Your task to perform on an android device: Add asus zenbook to the cart on walmart.com Image 0: 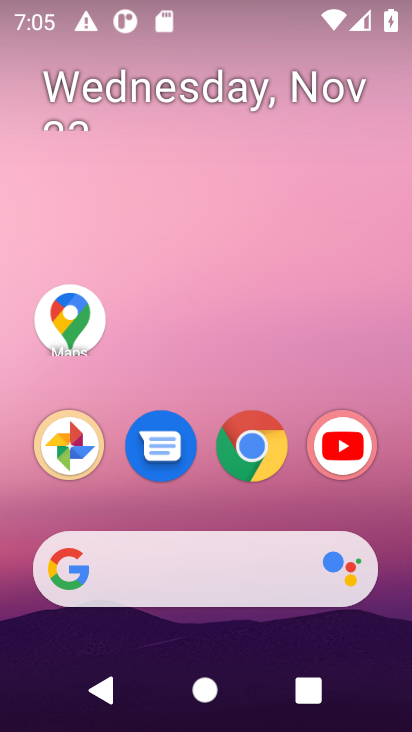
Step 0: click (180, 582)
Your task to perform on an android device: Add asus zenbook to the cart on walmart.com Image 1: 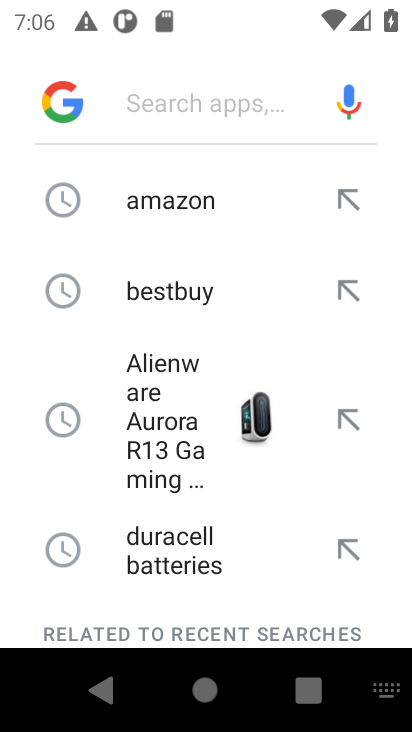
Step 1: type "walmart.com"
Your task to perform on an android device: Add asus zenbook to the cart on walmart.com Image 2: 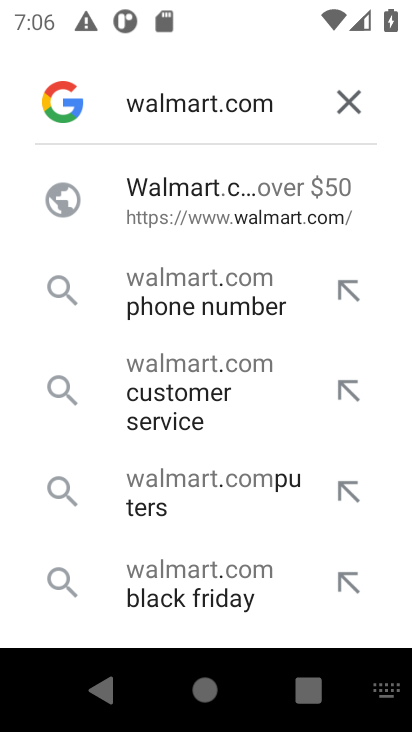
Step 2: click (151, 193)
Your task to perform on an android device: Add asus zenbook to the cart on walmart.com Image 3: 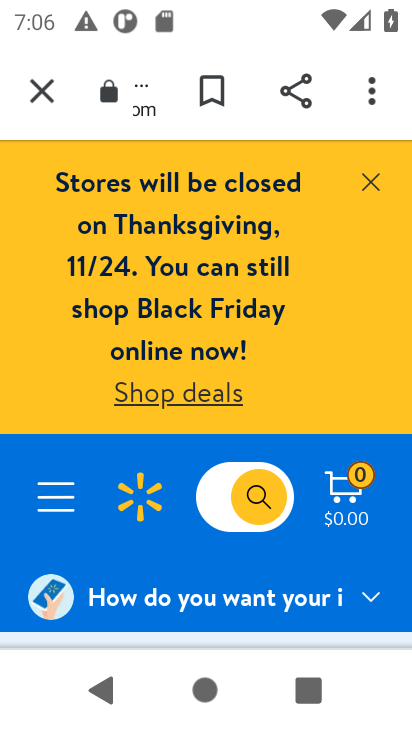
Step 3: click (366, 181)
Your task to perform on an android device: Add asus zenbook to the cart on walmart.com Image 4: 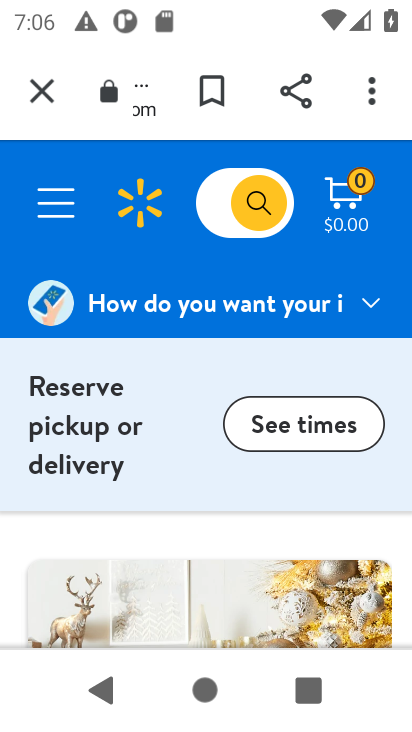
Step 4: click (224, 219)
Your task to perform on an android device: Add asus zenbook to the cart on walmart.com Image 5: 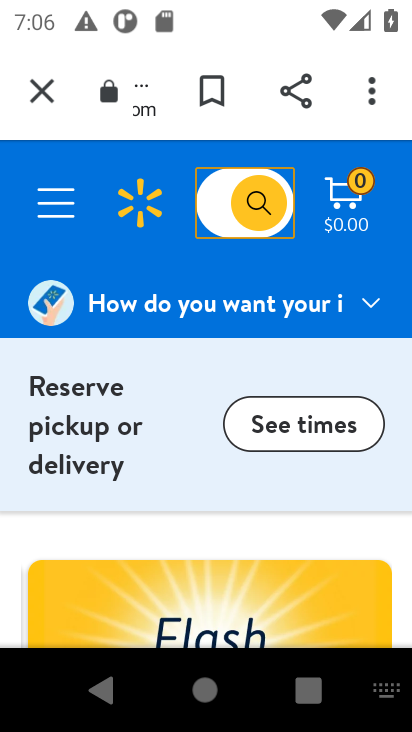
Step 5: type "asus zenbook"
Your task to perform on an android device: Add asus zenbook to the cart on walmart.com Image 6: 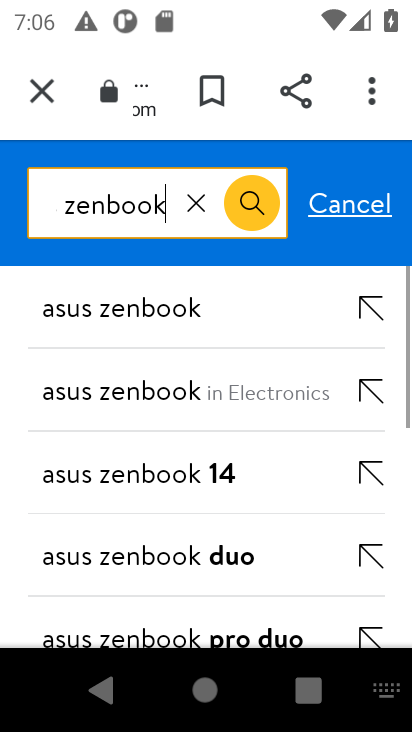
Step 6: click (148, 394)
Your task to perform on an android device: Add asus zenbook to the cart on walmart.com Image 7: 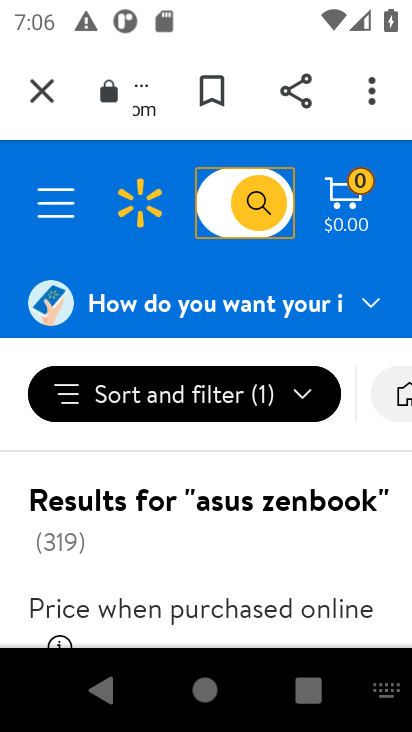
Step 7: drag from (147, 534) to (145, 228)
Your task to perform on an android device: Add asus zenbook to the cart on walmart.com Image 8: 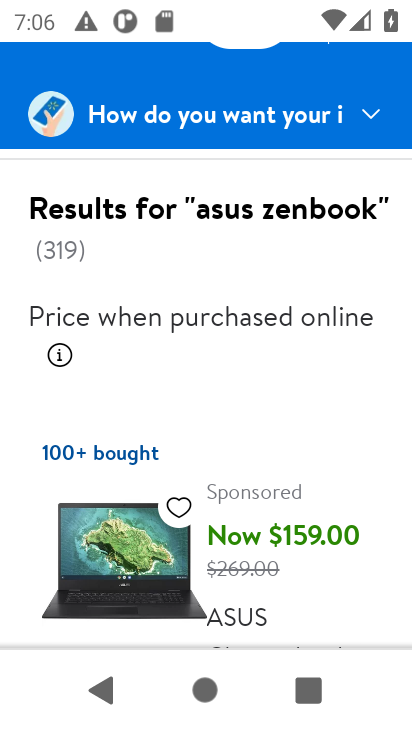
Step 8: drag from (289, 412) to (285, 217)
Your task to perform on an android device: Add asus zenbook to the cart on walmart.com Image 9: 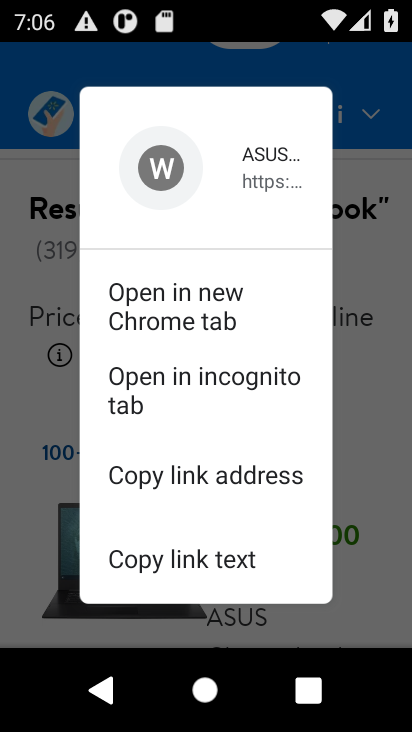
Step 9: click (380, 432)
Your task to perform on an android device: Add asus zenbook to the cart on walmart.com Image 10: 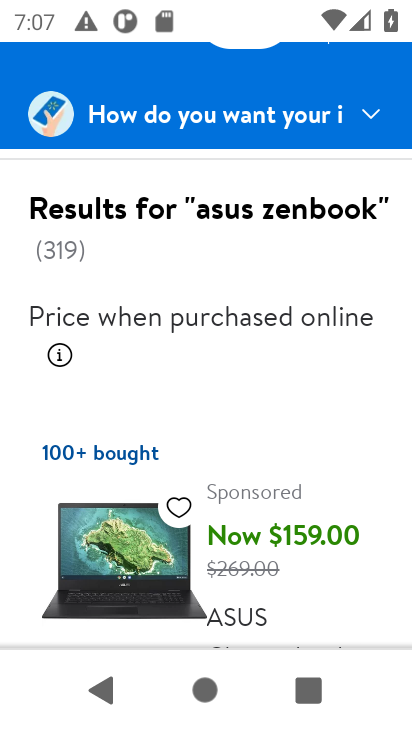
Step 10: drag from (340, 594) to (299, 303)
Your task to perform on an android device: Add asus zenbook to the cart on walmart.com Image 11: 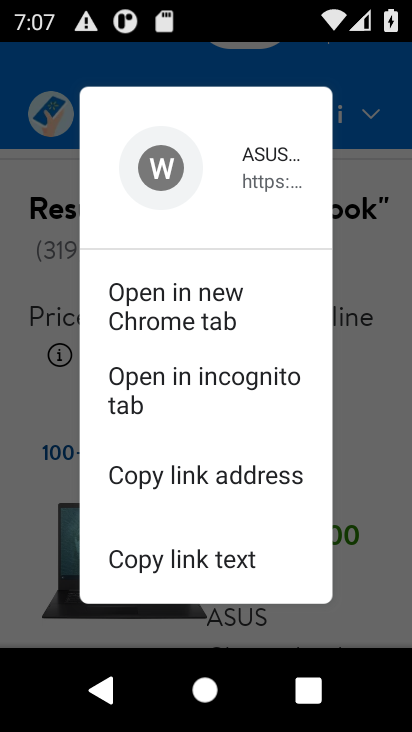
Step 11: click (348, 375)
Your task to perform on an android device: Add asus zenbook to the cart on walmart.com Image 12: 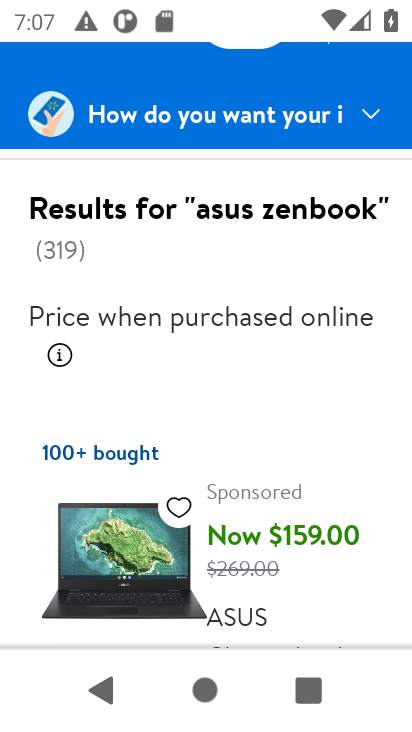
Step 12: drag from (29, 572) to (38, 336)
Your task to perform on an android device: Add asus zenbook to the cart on walmart.com Image 13: 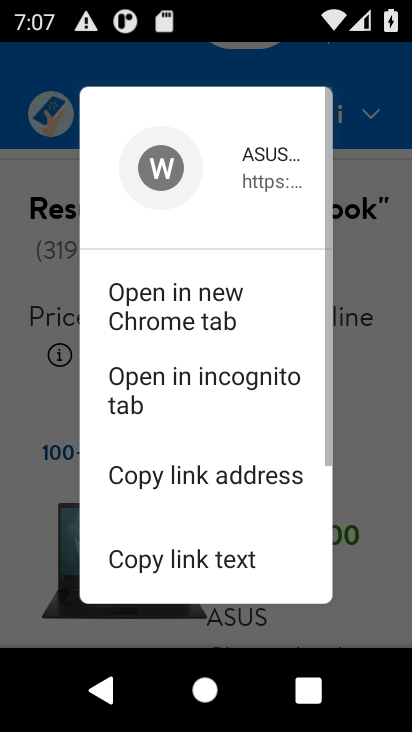
Step 13: click (38, 387)
Your task to perform on an android device: Add asus zenbook to the cart on walmart.com Image 14: 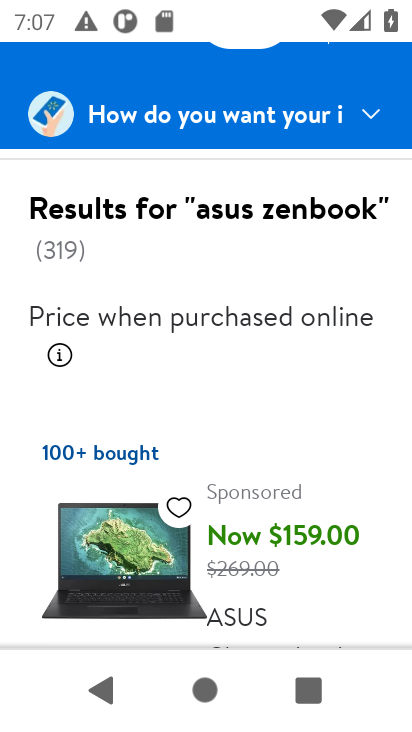
Step 14: task complete